Your task to perform on an android device: Go to Android settings Image 0: 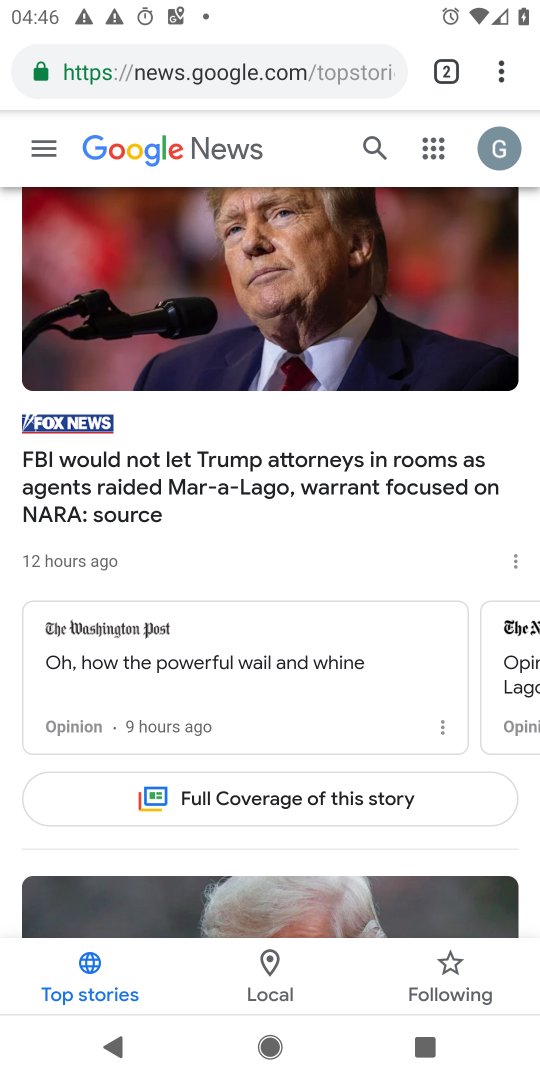
Step 0: press home button
Your task to perform on an android device: Go to Android settings Image 1: 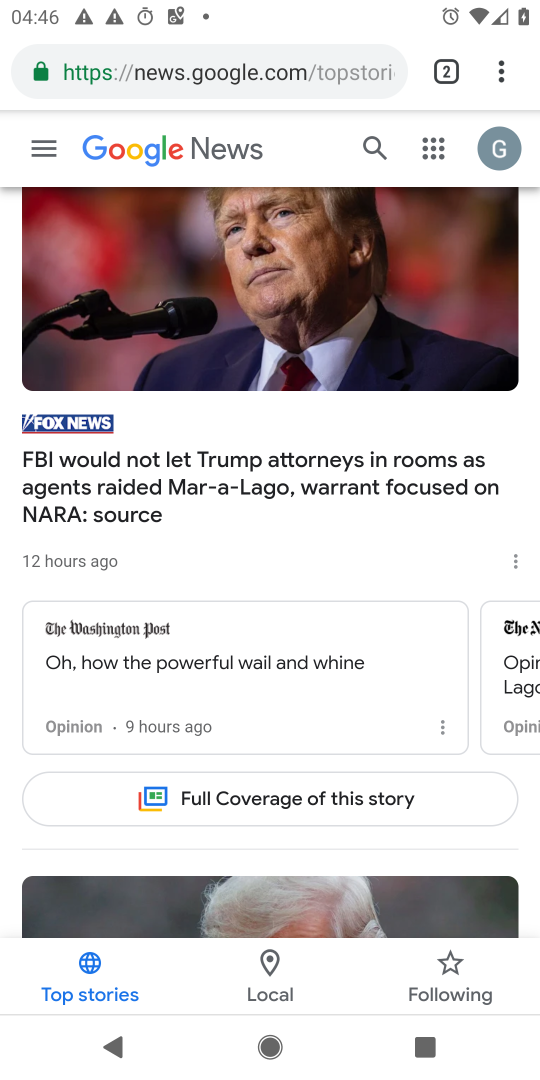
Step 1: press home button
Your task to perform on an android device: Go to Android settings Image 2: 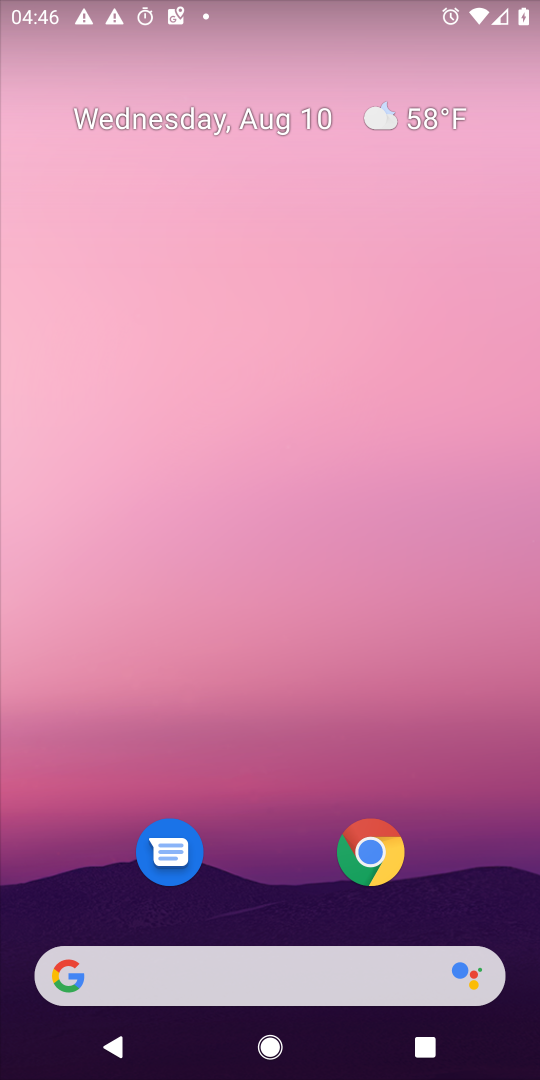
Step 2: drag from (237, 884) to (72, 151)
Your task to perform on an android device: Go to Android settings Image 3: 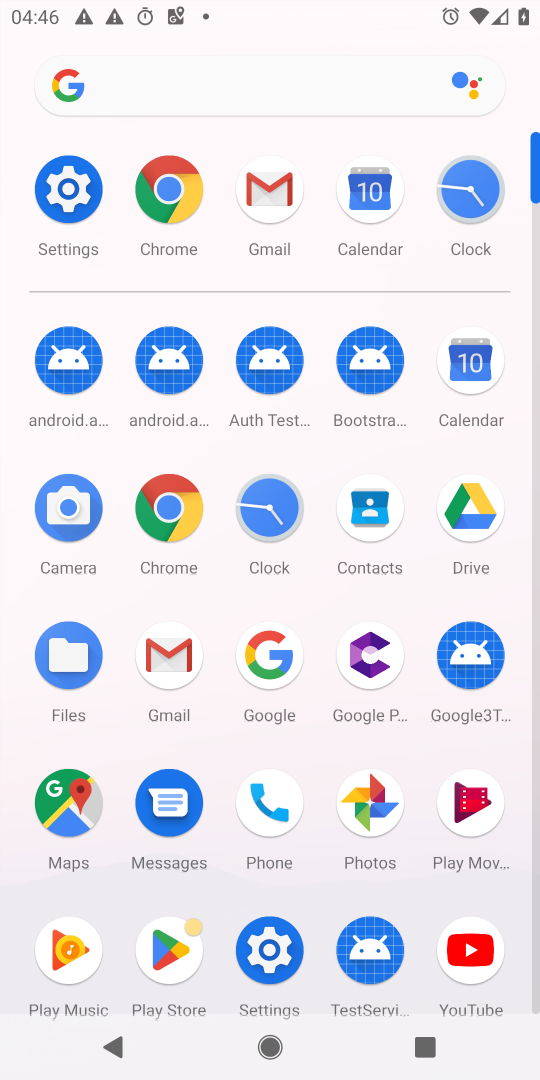
Step 3: click (280, 944)
Your task to perform on an android device: Go to Android settings Image 4: 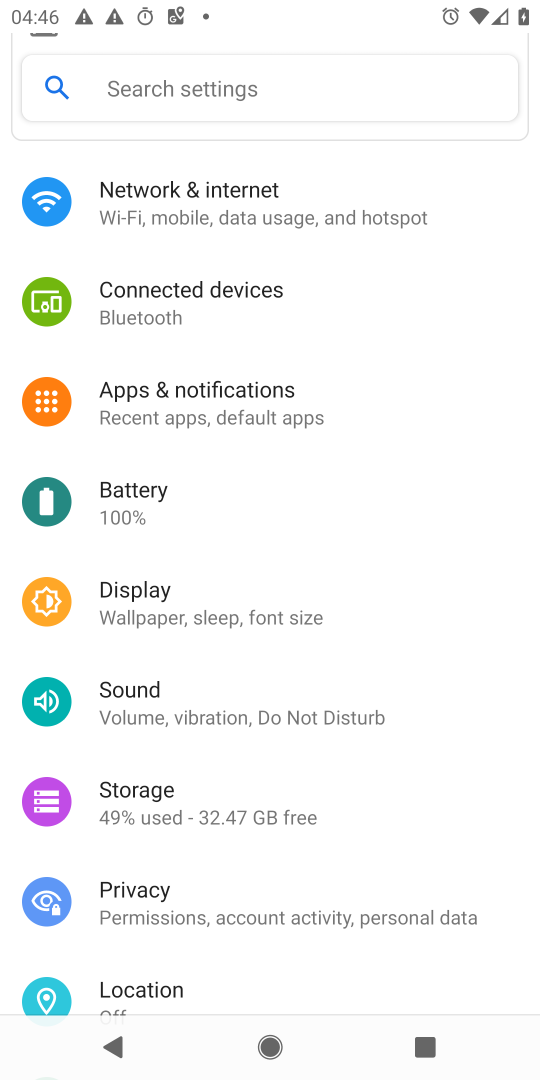
Step 4: task complete